Your task to perform on an android device: toggle notification dots Image 0: 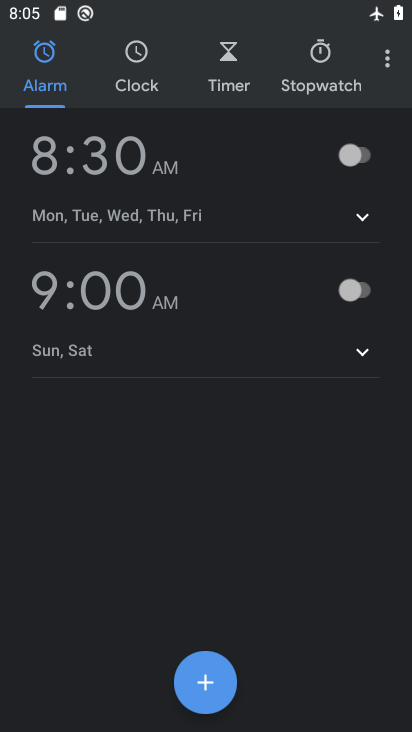
Step 0: press home button
Your task to perform on an android device: toggle notification dots Image 1: 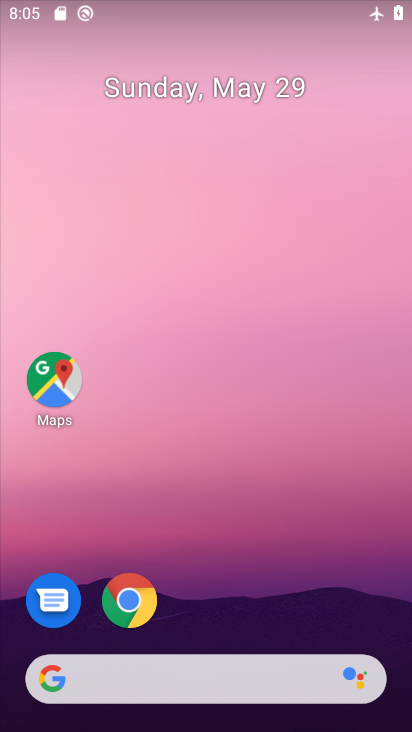
Step 1: drag from (216, 597) to (203, 2)
Your task to perform on an android device: toggle notification dots Image 2: 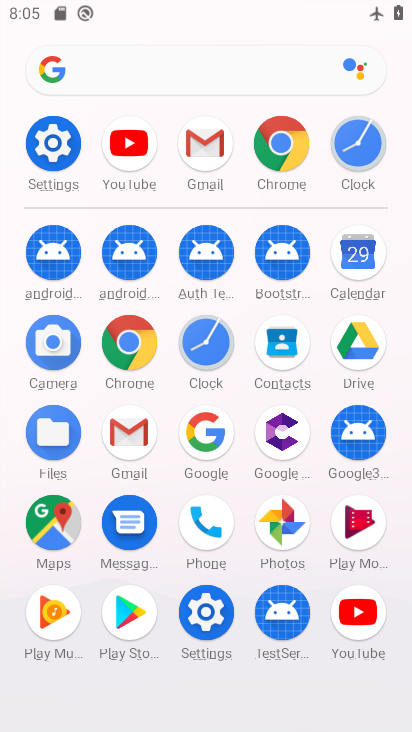
Step 2: click (64, 140)
Your task to perform on an android device: toggle notification dots Image 3: 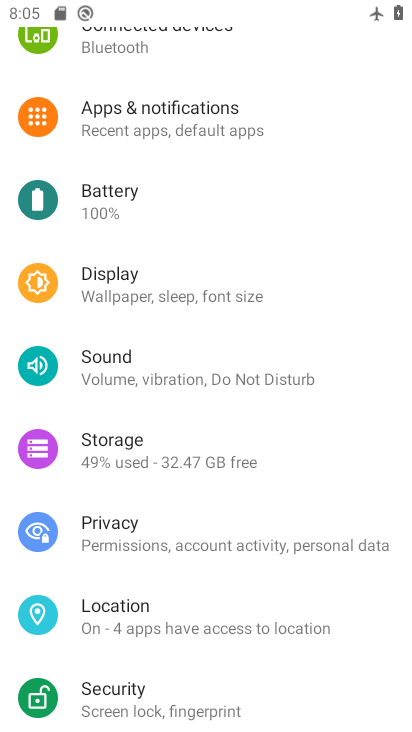
Step 3: click (176, 132)
Your task to perform on an android device: toggle notification dots Image 4: 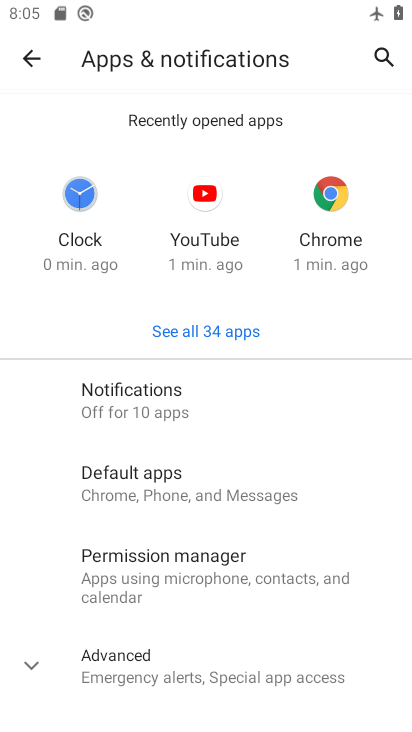
Step 4: click (137, 407)
Your task to perform on an android device: toggle notification dots Image 5: 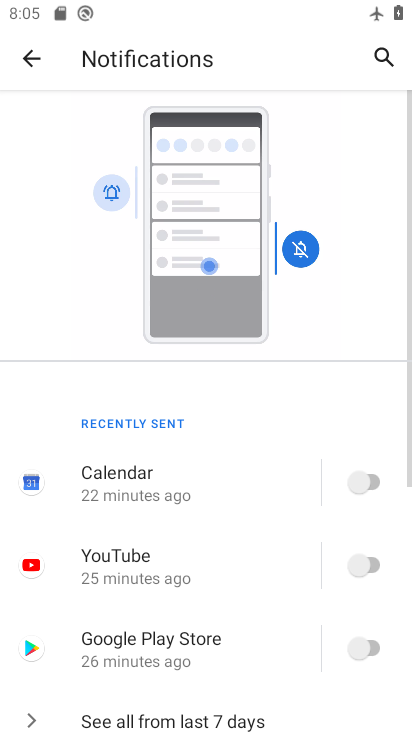
Step 5: drag from (182, 563) to (213, 168)
Your task to perform on an android device: toggle notification dots Image 6: 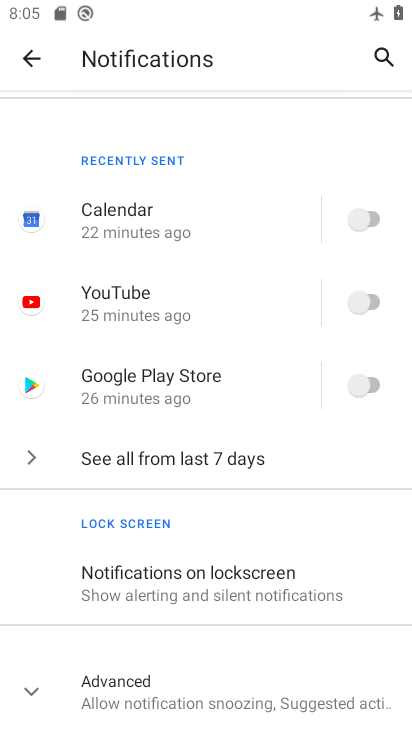
Step 6: drag from (170, 652) to (231, 315)
Your task to perform on an android device: toggle notification dots Image 7: 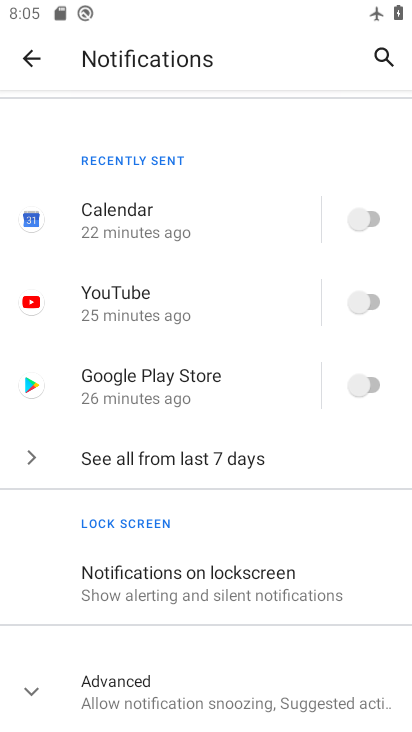
Step 7: click (120, 689)
Your task to perform on an android device: toggle notification dots Image 8: 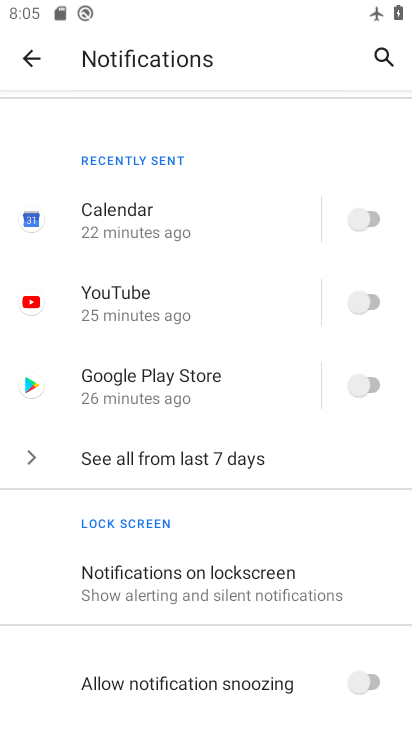
Step 8: drag from (135, 679) to (197, 415)
Your task to perform on an android device: toggle notification dots Image 9: 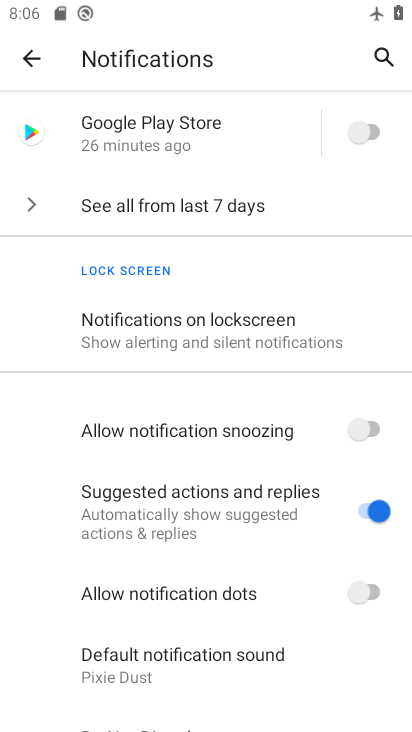
Step 9: click (375, 583)
Your task to perform on an android device: toggle notification dots Image 10: 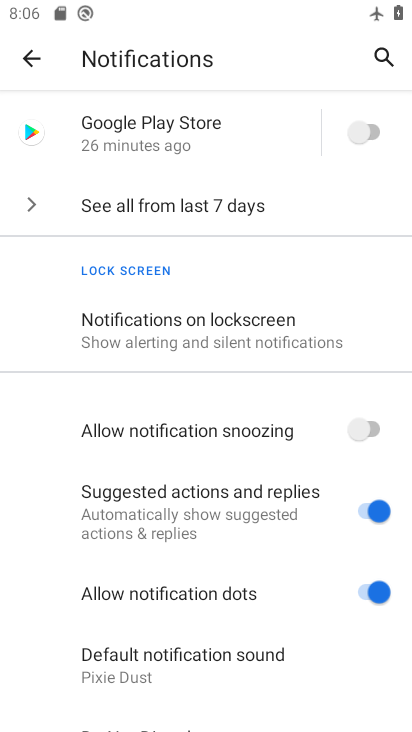
Step 10: task complete